Your task to perform on an android device: turn off javascript in the chrome app Image 0: 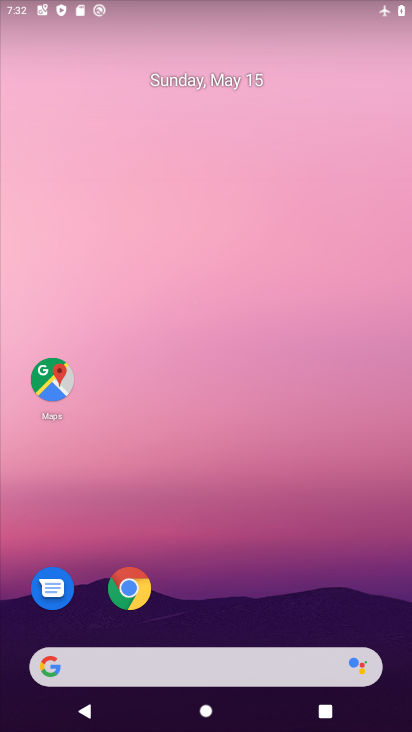
Step 0: drag from (367, 596) to (304, 30)
Your task to perform on an android device: turn off javascript in the chrome app Image 1: 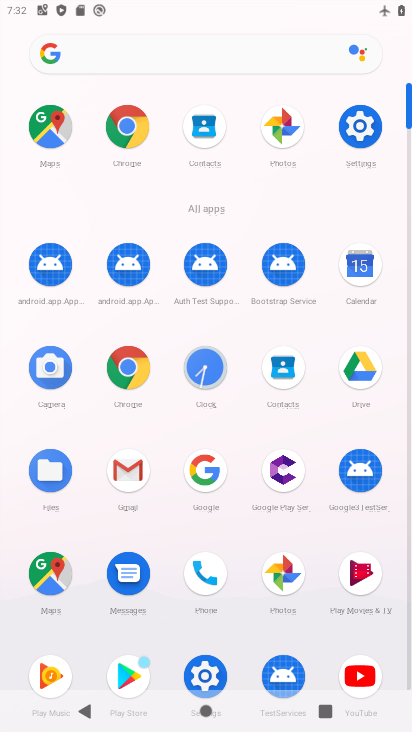
Step 1: click (126, 371)
Your task to perform on an android device: turn off javascript in the chrome app Image 2: 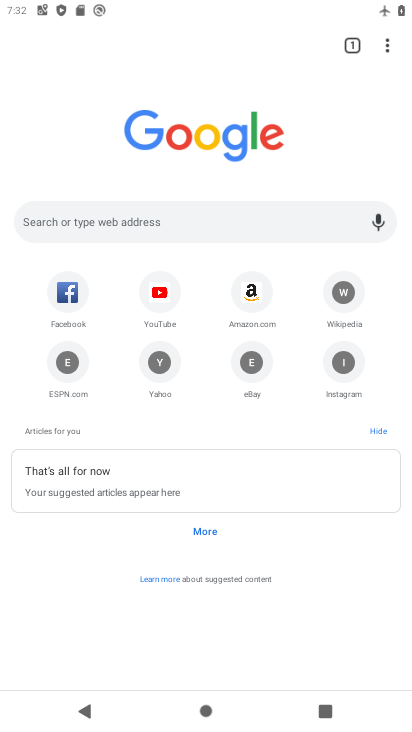
Step 2: click (386, 42)
Your task to perform on an android device: turn off javascript in the chrome app Image 3: 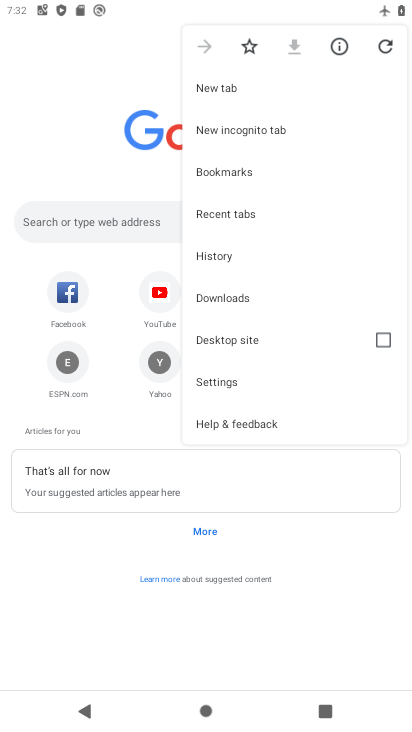
Step 3: click (285, 379)
Your task to perform on an android device: turn off javascript in the chrome app Image 4: 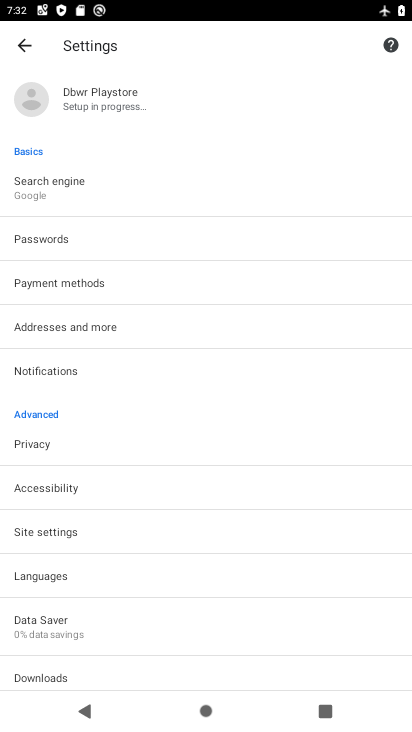
Step 4: click (139, 536)
Your task to perform on an android device: turn off javascript in the chrome app Image 5: 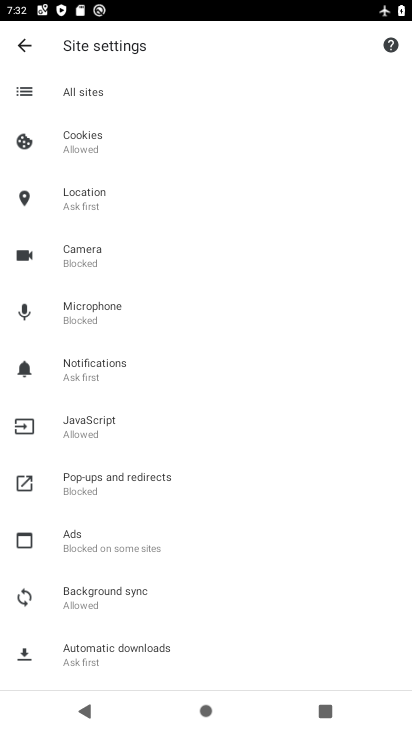
Step 5: click (103, 427)
Your task to perform on an android device: turn off javascript in the chrome app Image 6: 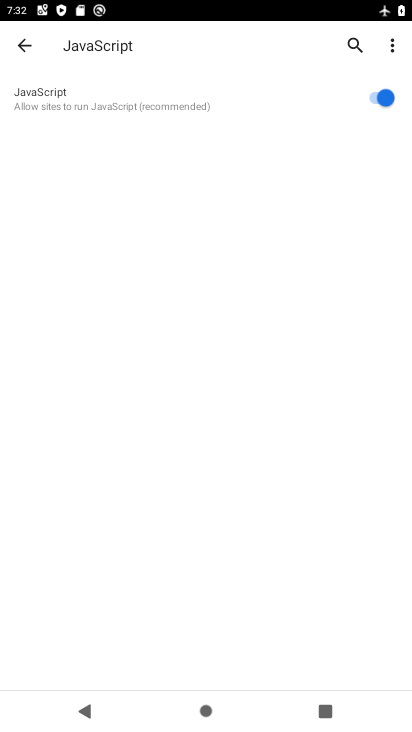
Step 6: click (359, 89)
Your task to perform on an android device: turn off javascript in the chrome app Image 7: 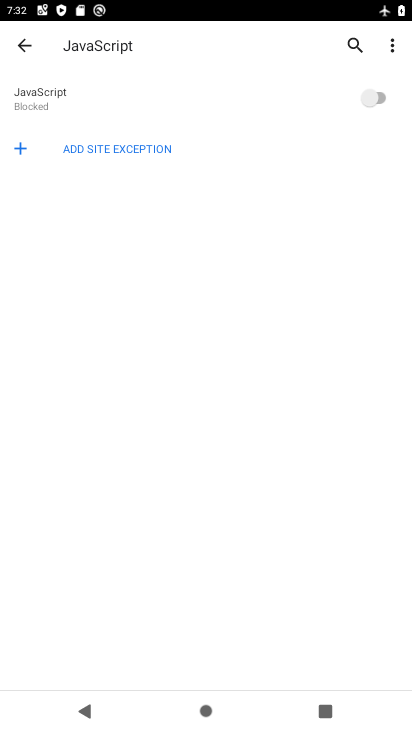
Step 7: task complete